Your task to perform on an android device: stop showing notifications on the lock screen Image 0: 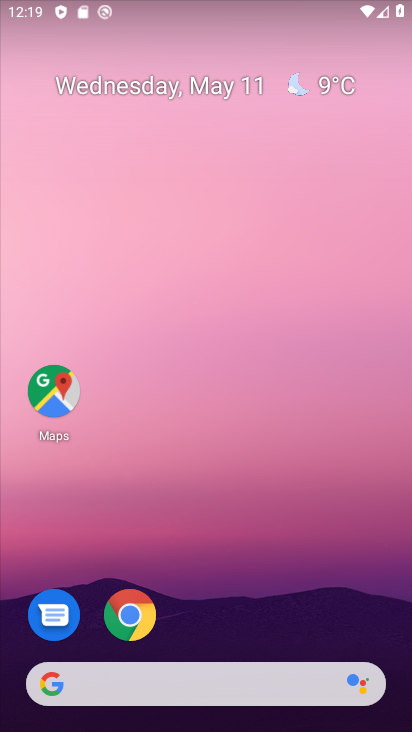
Step 0: drag from (242, 624) to (258, 96)
Your task to perform on an android device: stop showing notifications on the lock screen Image 1: 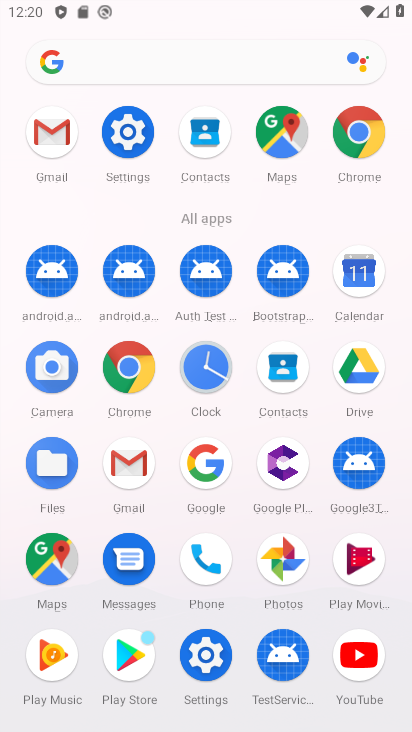
Step 1: click (127, 117)
Your task to perform on an android device: stop showing notifications on the lock screen Image 2: 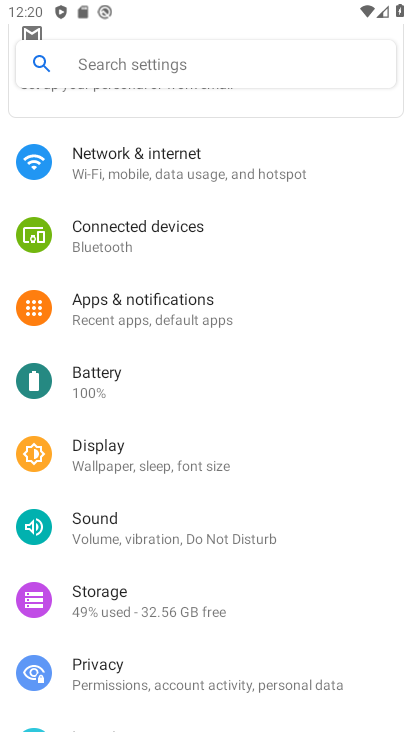
Step 2: drag from (167, 607) to (198, 398)
Your task to perform on an android device: stop showing notifications on the lock screen Image 3: 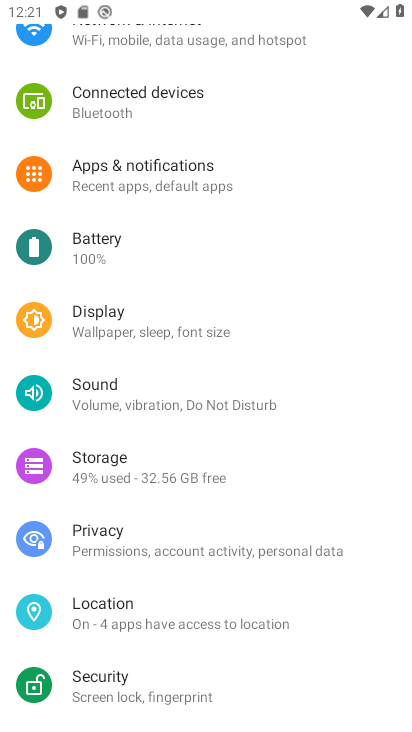
Step 3: click (180, 158)
Your task to perform on an android device: stop showing notifications on the lock screen Image 4: 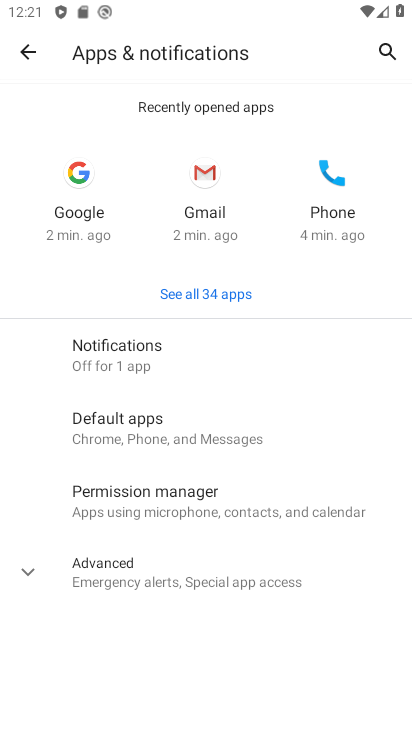
Step 4: click (147, 570)
Your task to perform on an android device: stop showing notifications on the lock screen Image 5: 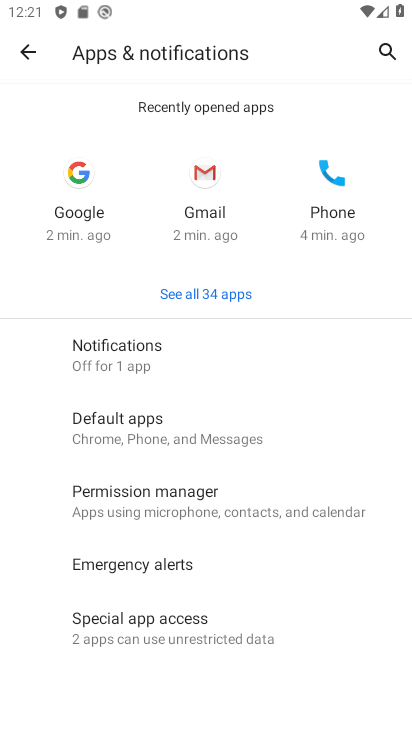
Step 5: click (201, 358)
Your task to perform on an android device: stop showing notifications on the lock screen Image 6: 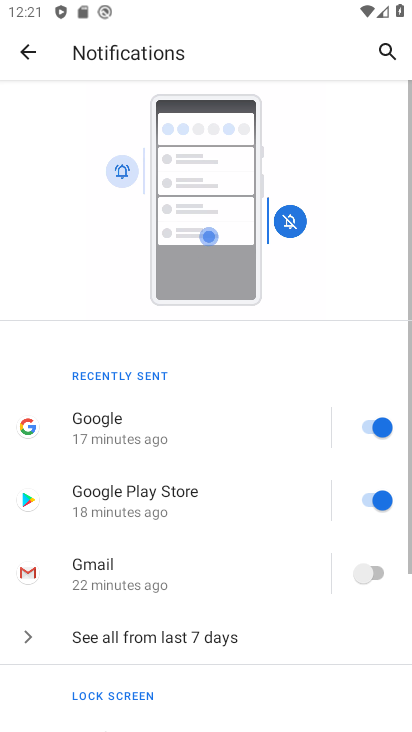
Step 6: drag from (150, 614) to (198, 306)
Your task to perform on an android device: stop showing notifications on the lock screen Image 7: 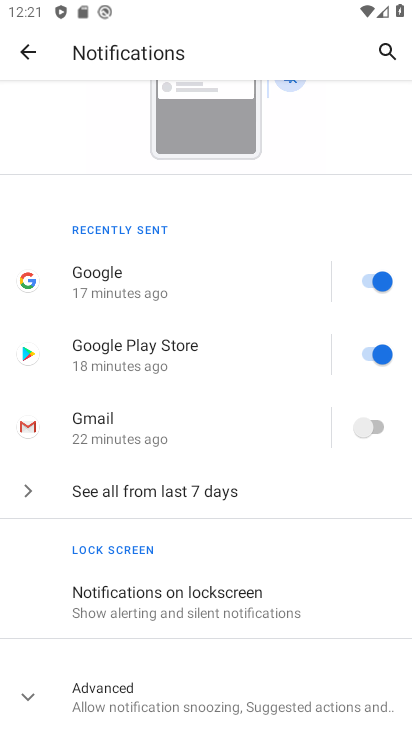
Step 7: click (182, 613)
Your task to perform on an android device: stop showing notifications on the lock screen Image 8: 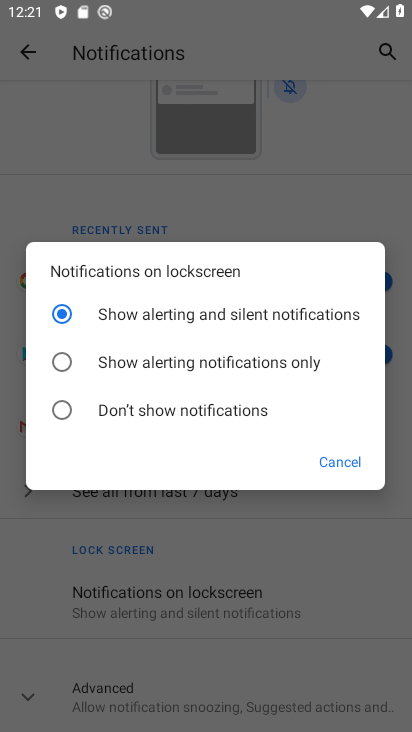
Step 8: click (165, 426)
Your task to perform on an android device: stop showing notifications on the lock screen Image 9: 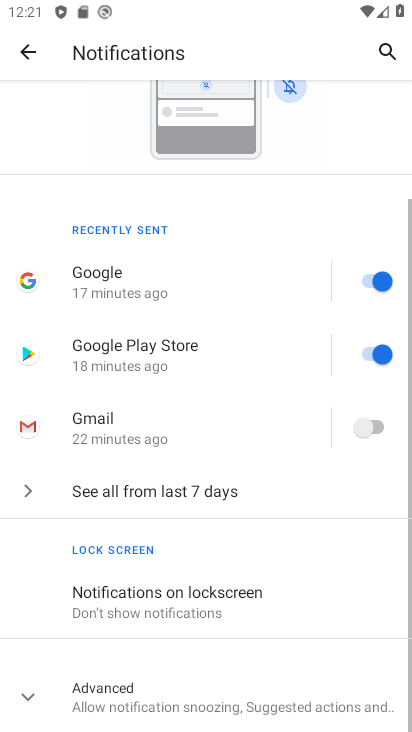
Step 9: task complete